Your task to perform on an android device: snooze an email in the gmail app Image 0: 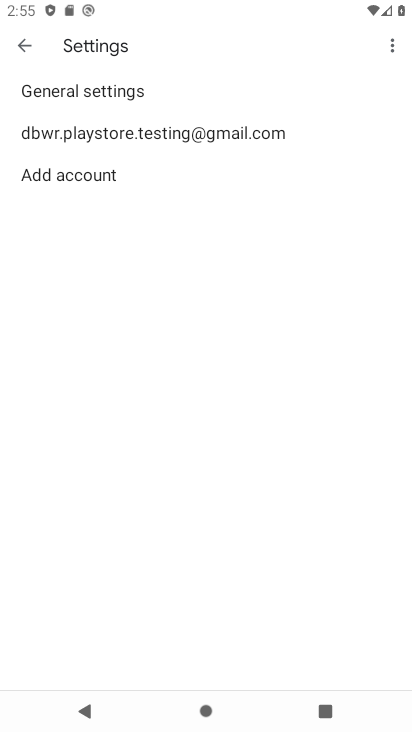
Step 0: press back button
Your task to perform on an android device: snooze an email in the gmail app Image 1: 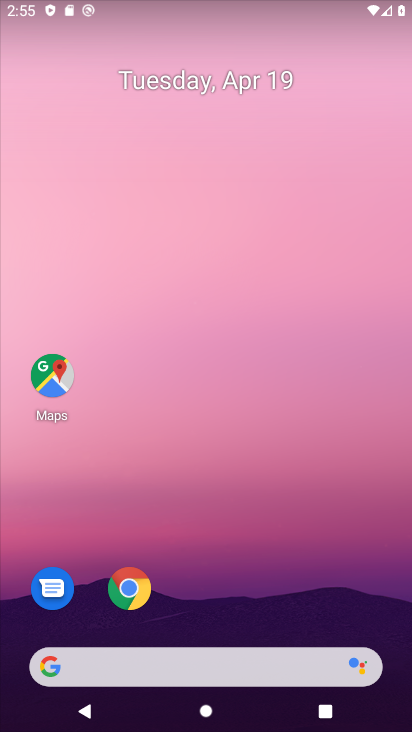
Step 1: drag from (124, 467) to (228, 152)
Your task to perform on an android device: snooze an email in the gmail app Image 2: 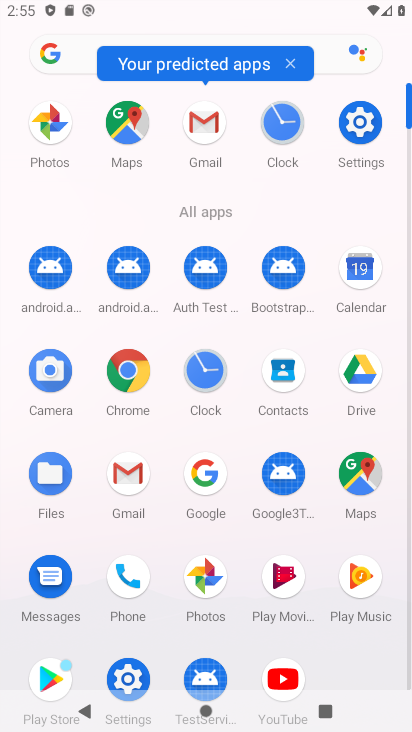
Step 2: click (118, 471)
Your task to perform on an android device: snooze an email in the gmail app Image 3: 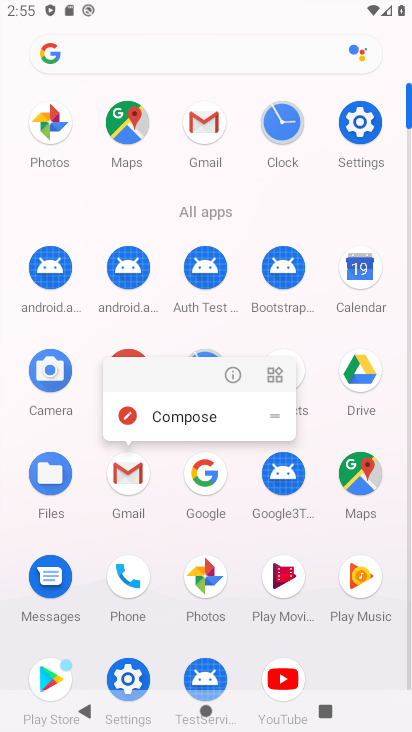
Step 3: click (136, 466)
Your task to perform on an android device: snooze an email in the gmail app Image 4: 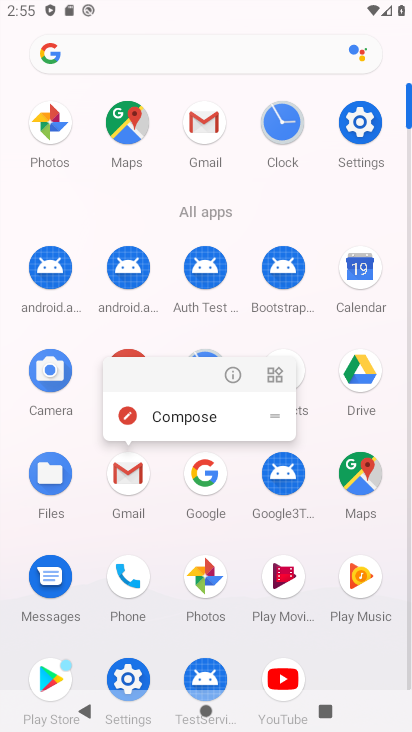
Step 4: click (129, 481)
Your task to perform on an android device: snooze an email in the gmail app Image 5: 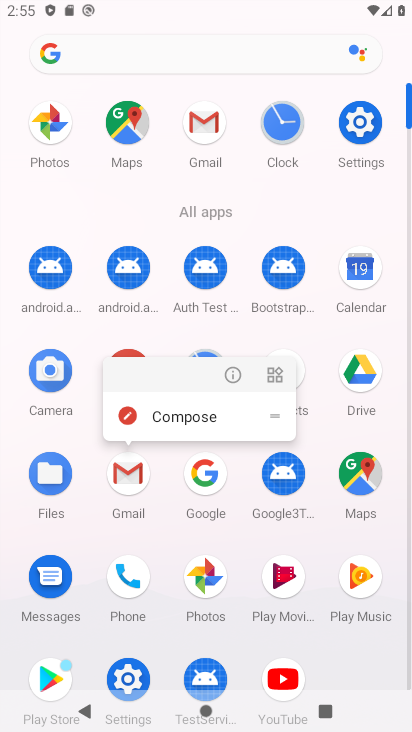
Step 5: click (129, 481)
Your task to perform on an android device: snooze an email in the gmail app Image 6: 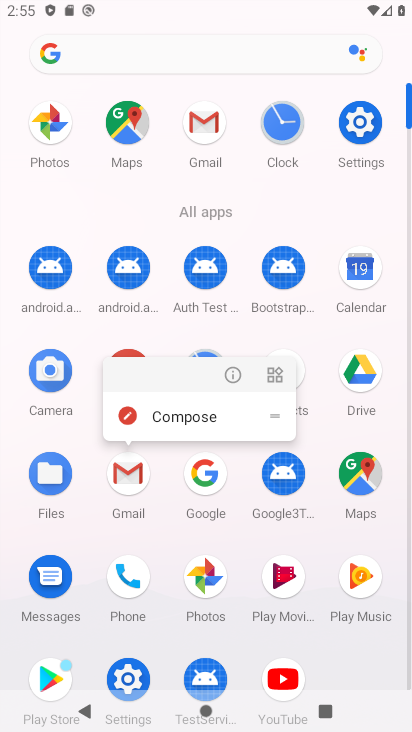
Step 6: click (137, 476)
Your task to perform on an android device: snooze an email in the gmail app Image 7: 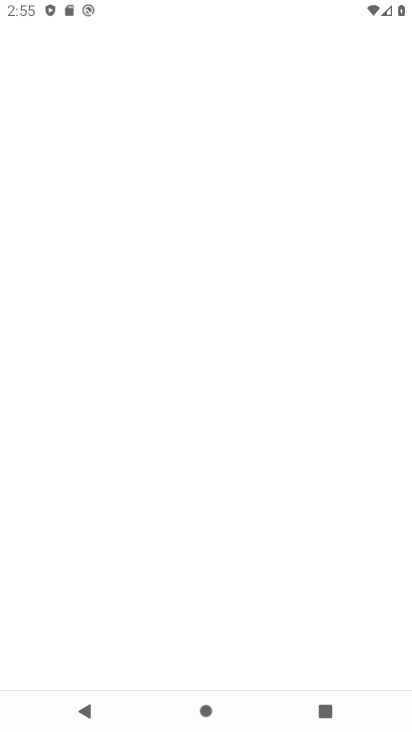
Step 7: click (135, 474)
Your task to perform on an android device: snooze an email in the gmail app Image 8: 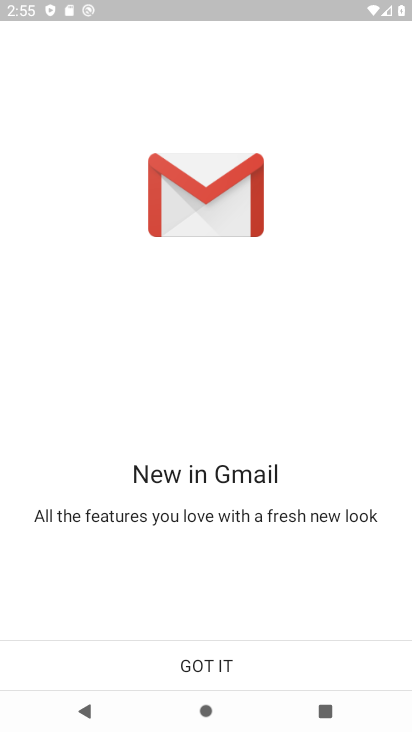
Step 8: click (228, 668)
Your task to perform on an android device: snooze an email in the gmail app Image 9: 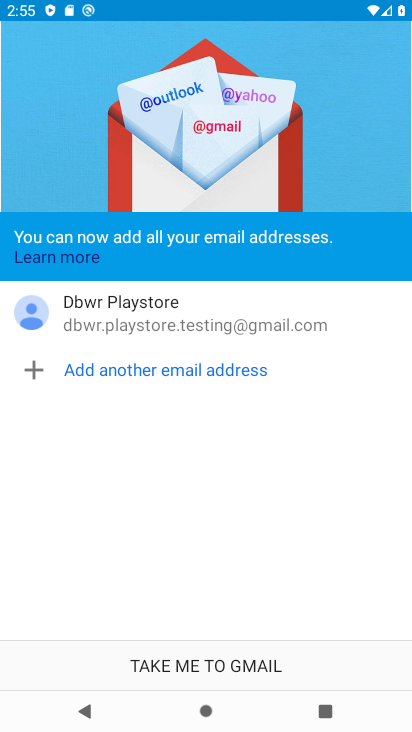
Step 9: click (228, 662)
Your task to perform on an android device: snooze an email in the gmail app Image 10: 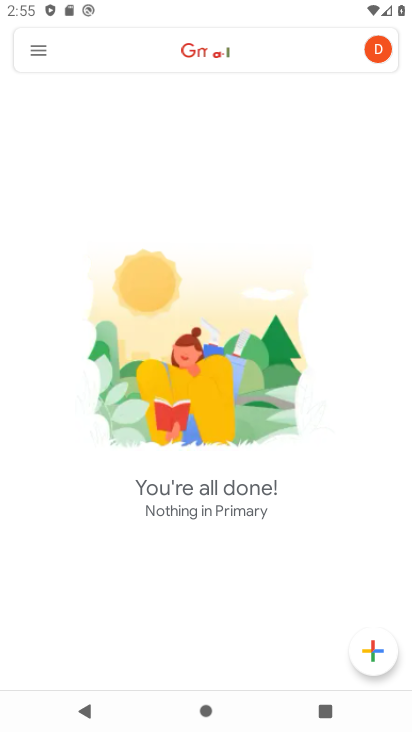
Step 10: click (32, 50)
Your task to perform on an android device: snooze an email in the gmail app Image 11: 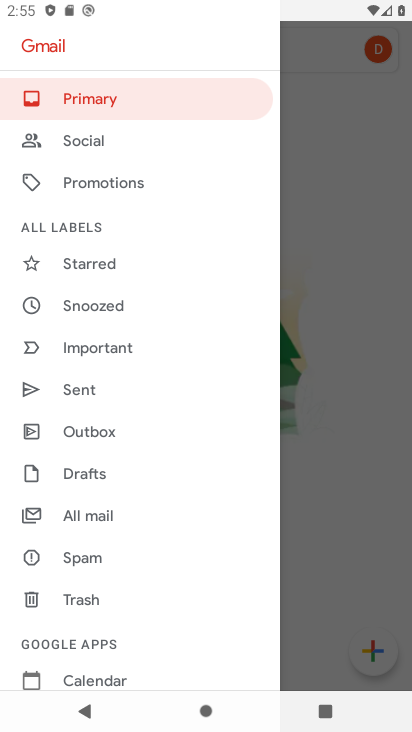
Step 11: click (133, 508)
Your task to perform on an android device: snooze an email in the gmail app Image 12: 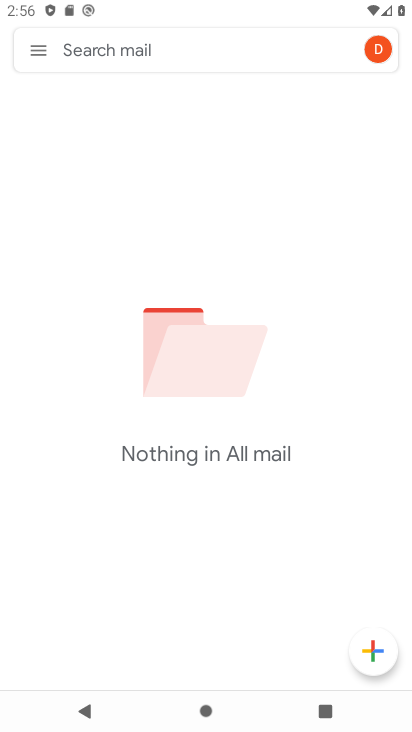
Step 12: task complete